Your task to perform on an android device: turn off notifications in google photos Image 0: 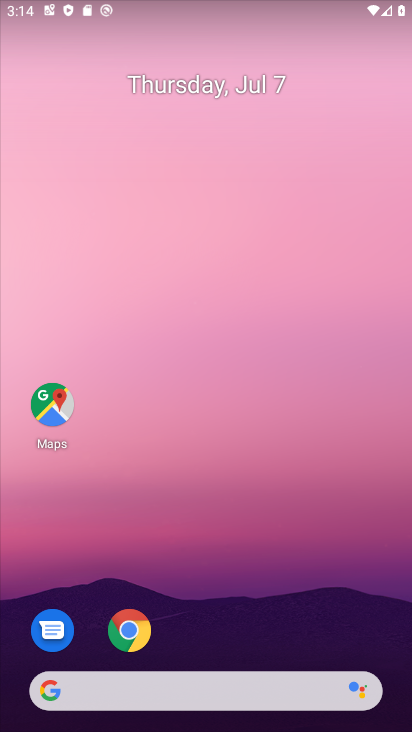
Step 0: drag from (243, 647) to (282, 0)
Your task to perform on an android device: turn off notifications in google photos Image 1: 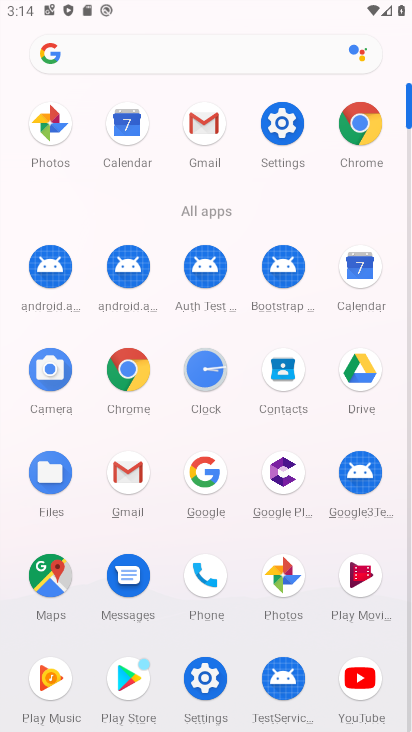
Step 1: click (287, 582)
Your task to perform on an android device: turn off notifications in google photos Image 2: 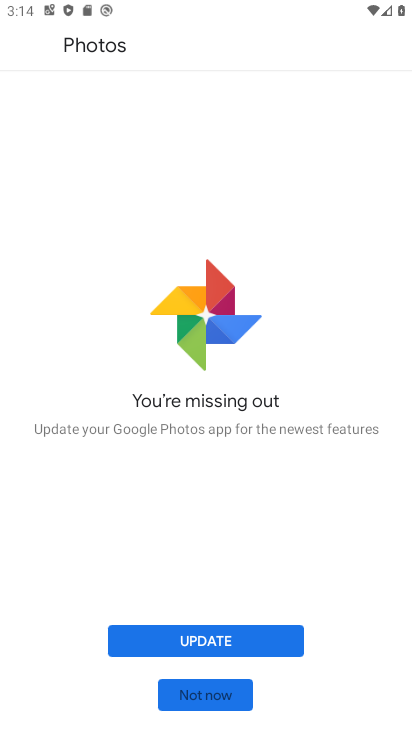
Step 2: click (212, 691)
Your task to perform on an android device: turn off notifications in google photos Image 3: 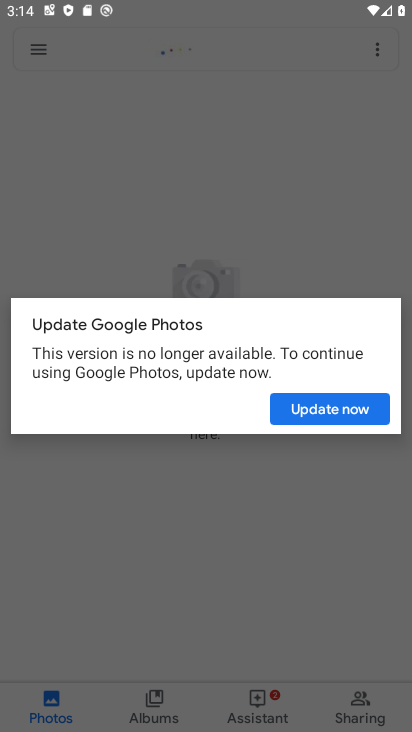
Step 3: click (314, 415)
Your task to perform on an android device: turn off notifications in google photos Image 4: 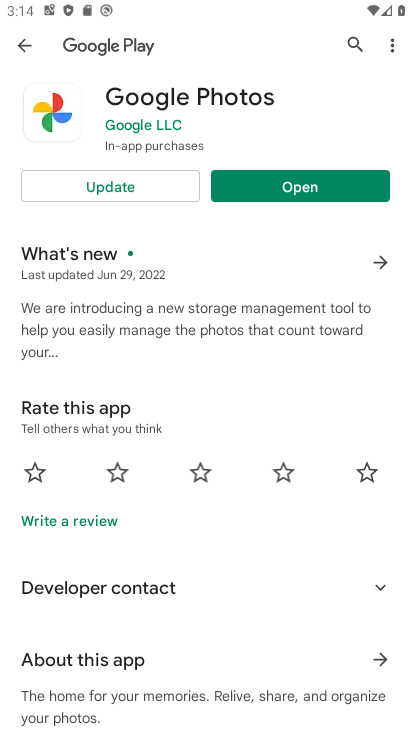
Step 4: click (297, 182)
Your task to perform on an android device: turn off notifications in google photos Image 5: 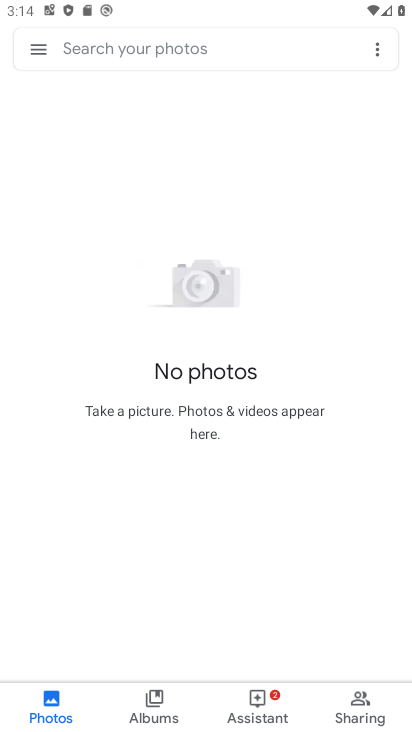
Step 5: click (26, 44)
Your task to perform on an android device: turn off notifications in google photos Image 6: 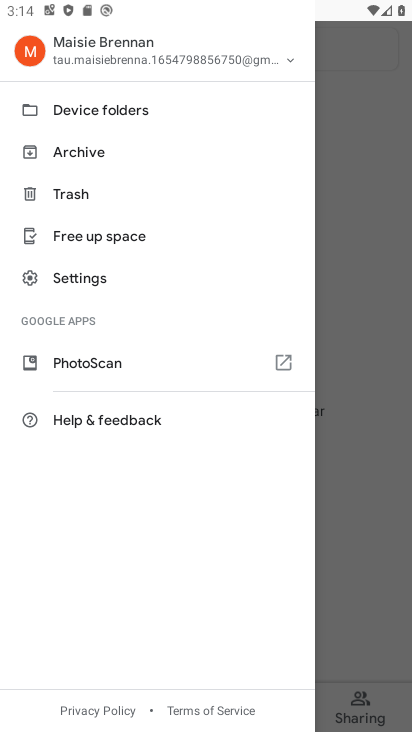
Step 6: click (87, 290)
Your task to perform on an android device: turn off notifications in google photos Image 7: 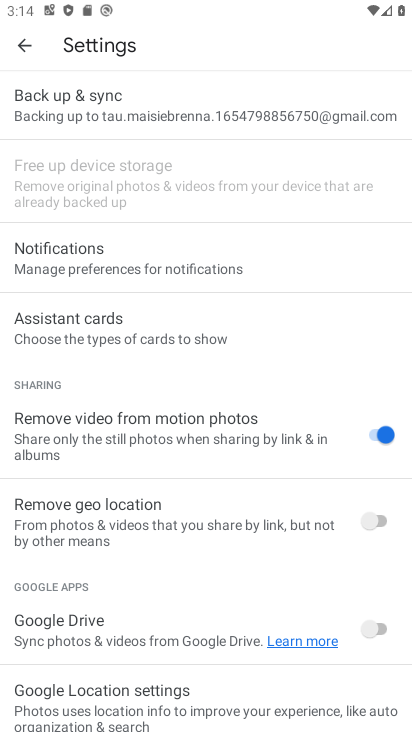
Step 7: click (106, 260)
Your task to perform on an android device: turn off notifications in google photos Image 8: 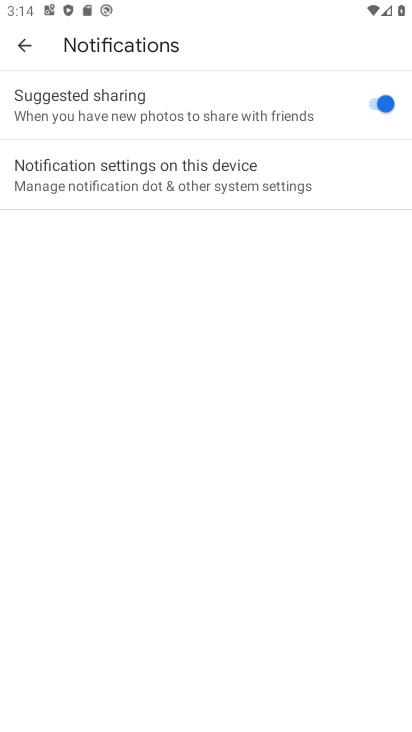
Step 8: click (150, 171)
Your task to perform on an android device: turn off notifications in google photos Image 9: 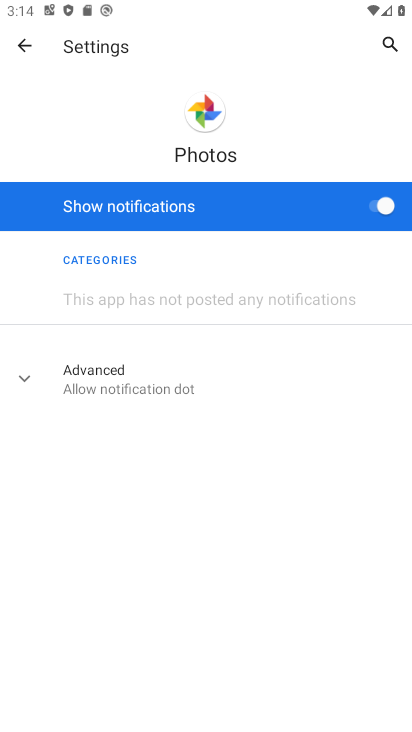
Step 9: click (367, 206)
Your task to perform on an android device: turn off notifications in google photos Image 10: 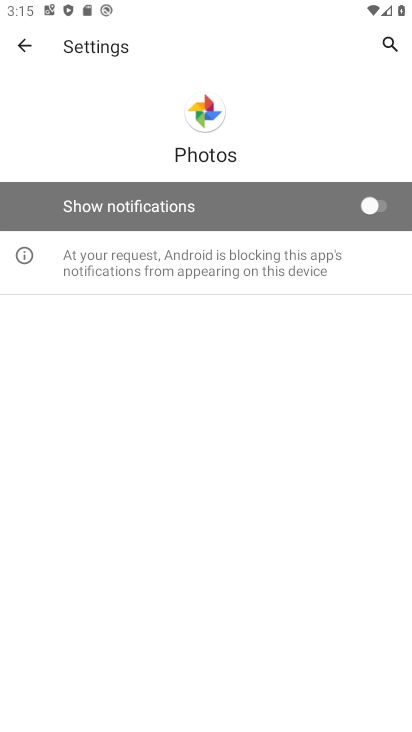
Step 10: task complete